Your task to perform on an android device: add a contact in the contacts app Image 0: 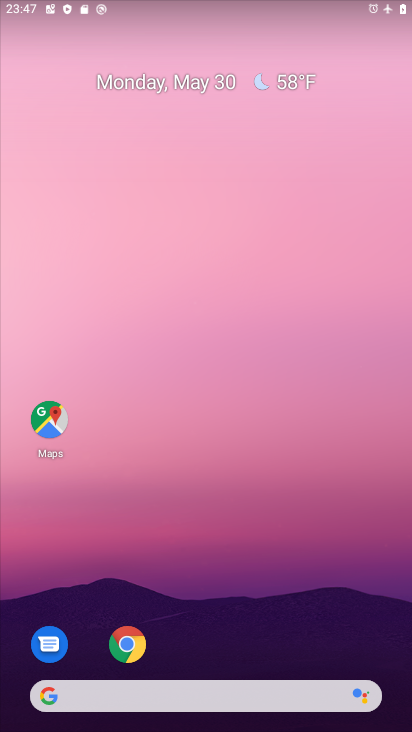
Step 0: drag from (380, 661) to (347, 60)
Your task to perform on an android device: add a contact in the contacts app Image 1: 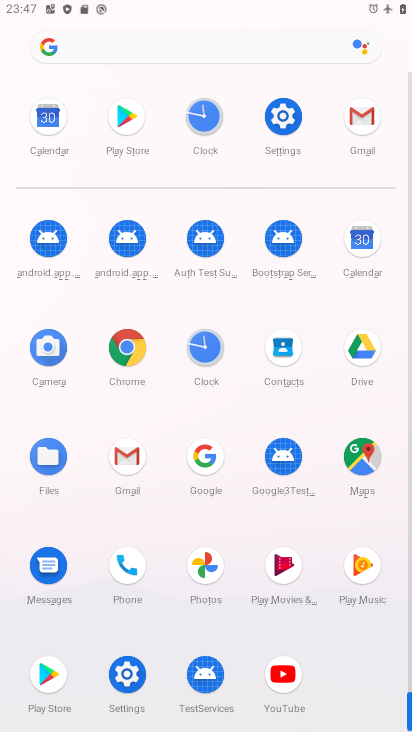
Step 1: click (282, 351)
Your task to perform on an android device: add a contact in the contacts app Image 2: 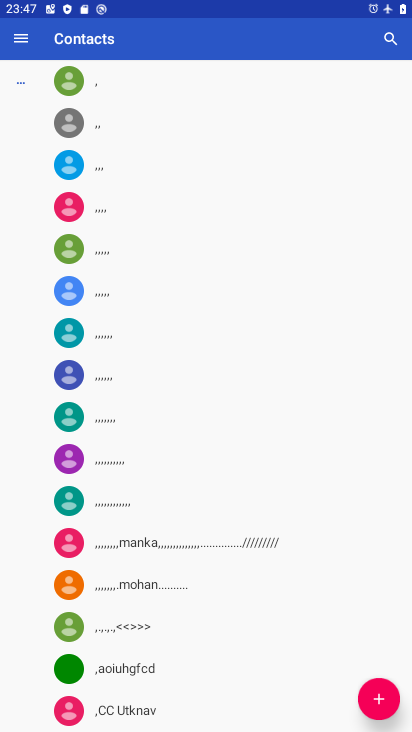
Step 2: click (383, 701)
Your task to perform on an android device: add a contact in the contacts app Image 3: 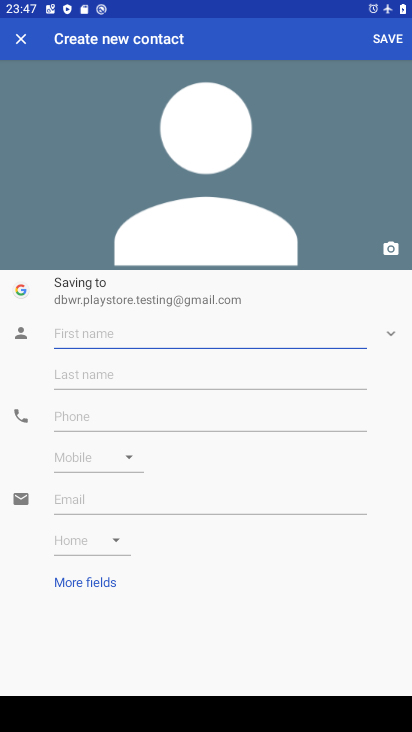
Step 3: type "lkjhgfdsa"
Your task to perform on an android device: add a contact in the contacts app Image 4: 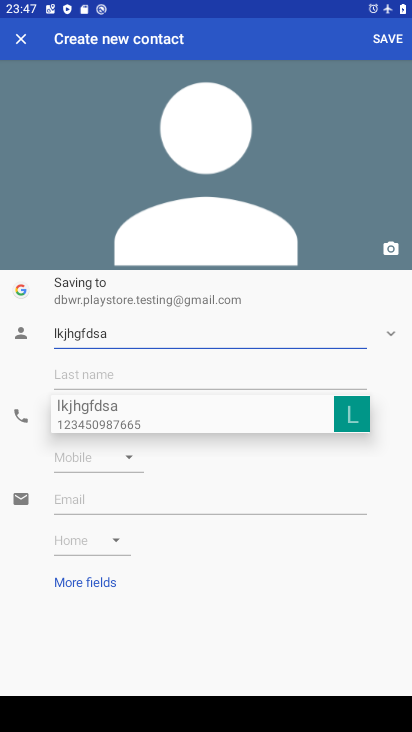
Step 4: click (79, 418)
Your task to perform on an android device: add a contact in the contacts app Image 5: 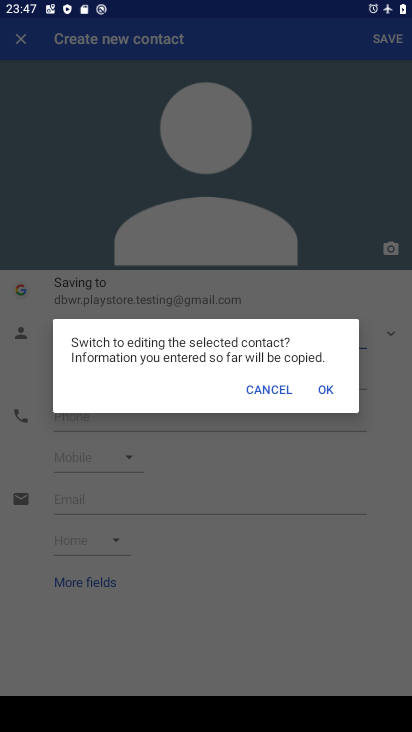
Step 5: click (275, 389)
Your task to perform on an android device: add a contact in the contacts app Image 6: 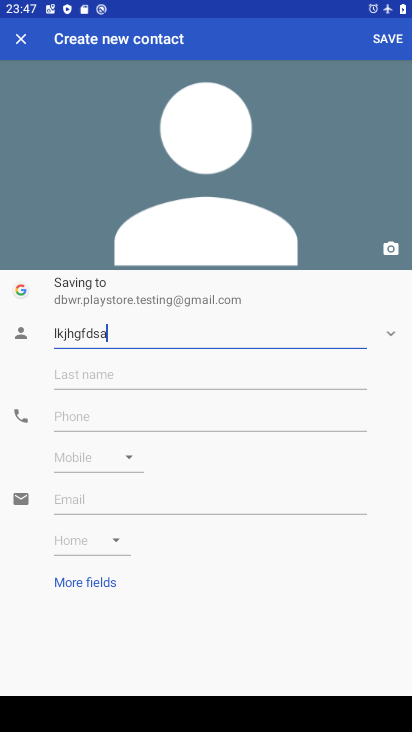
Step 6: click (88, 408)
Your task to perform on an android device: add a contact in the contacts app Image 7: 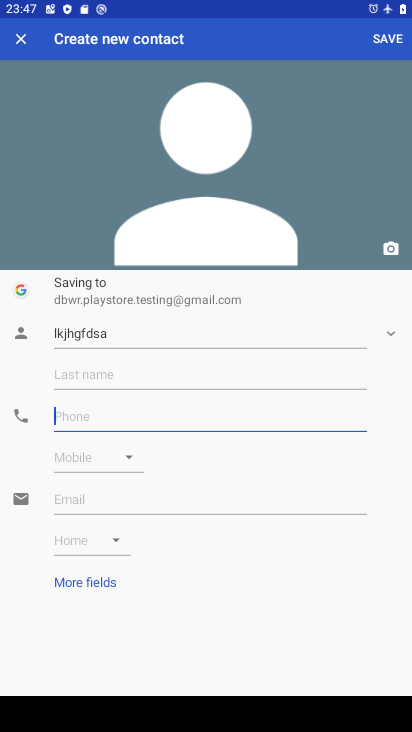
Step 7: type "09876543"
Your task to perform on an android device: add a contact in the contacts app Image 8: 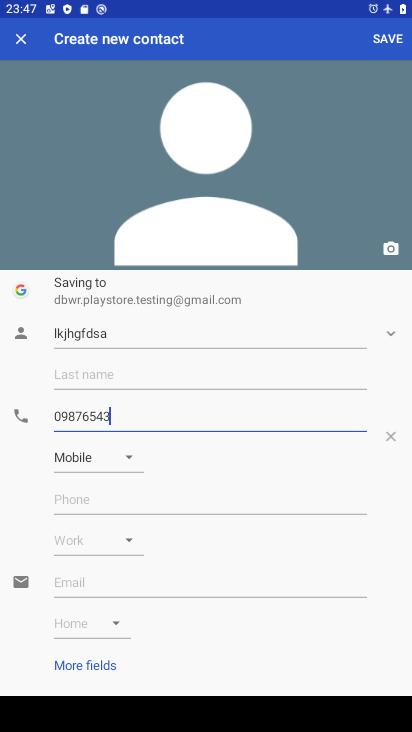
Step 8: click (124, 462)
Your task to perform on an android device: add a contact in the contacts app Image 9: 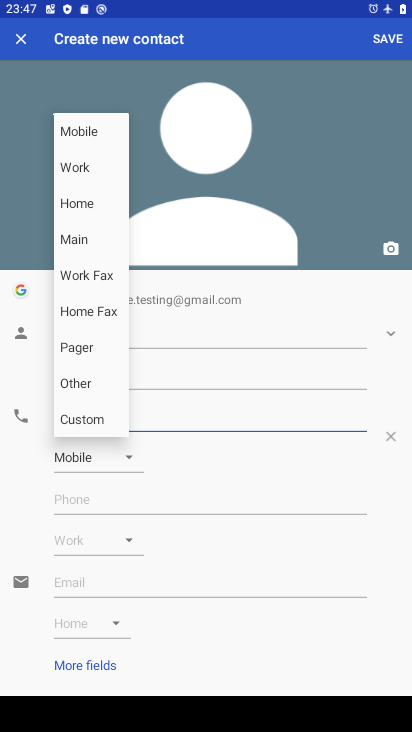
Step 9: click (68, 162)
Your task to perform on an android device: add a contact in the contacts app Image 10: 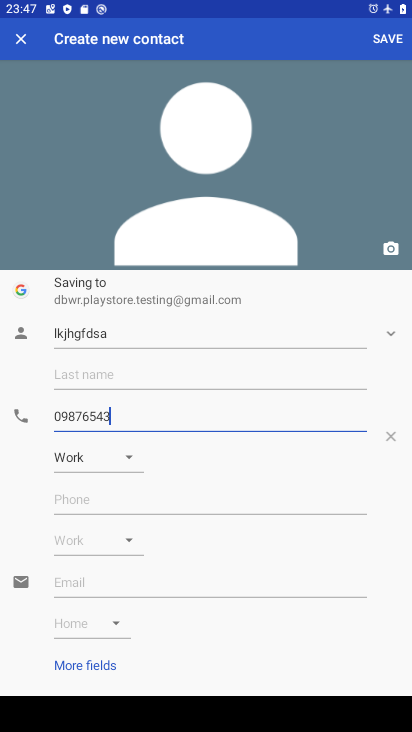
Step 10: click (390, 35)
Your task to perform on an android device: add a contact in the contacts app Image 11: 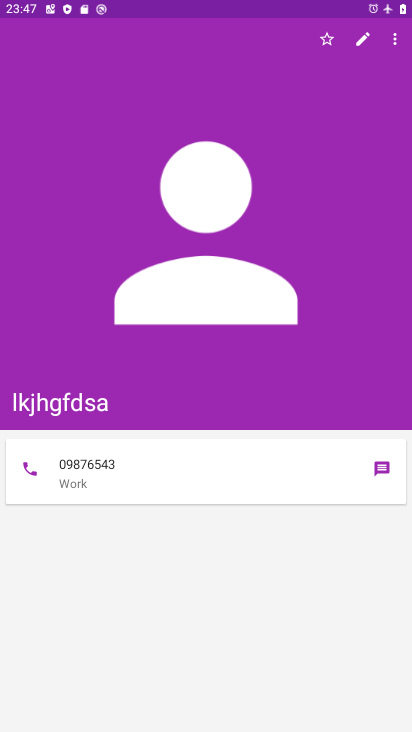
Step 11: task complete